Your task to perform on an android device: turn on bluetooth scan Image 0: 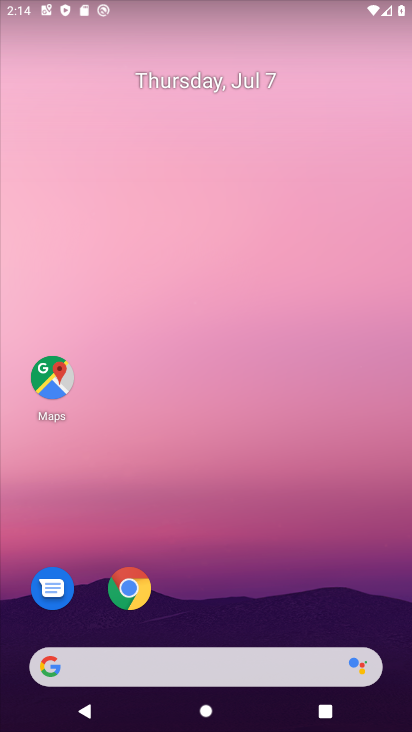
Step 0: drag from (196, 609) to (281, 45)
Your task to perform on an android device: turn on bluetooth scan Image 1: 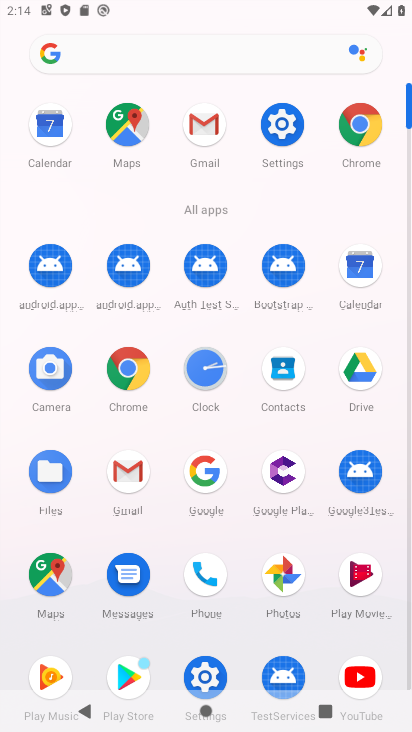
Step 1: click (274, 135)
Your task to perform on an android device: turn on bluetooth scan Image 2: 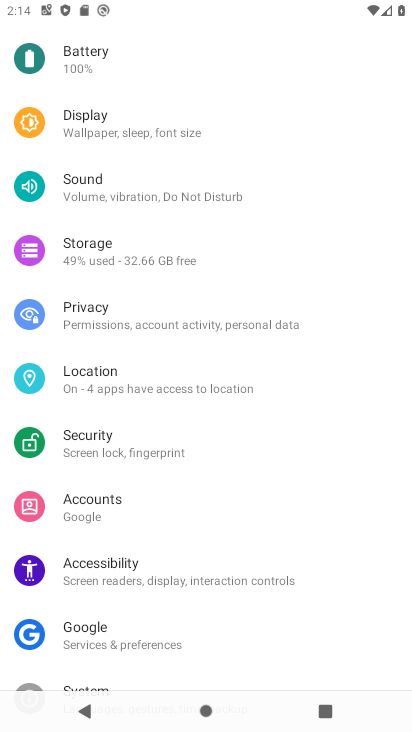
Step 2: drag from (192, 110) to (160, 688)
Your task to perform on an android device: turn on bluetooth scan Image 3: 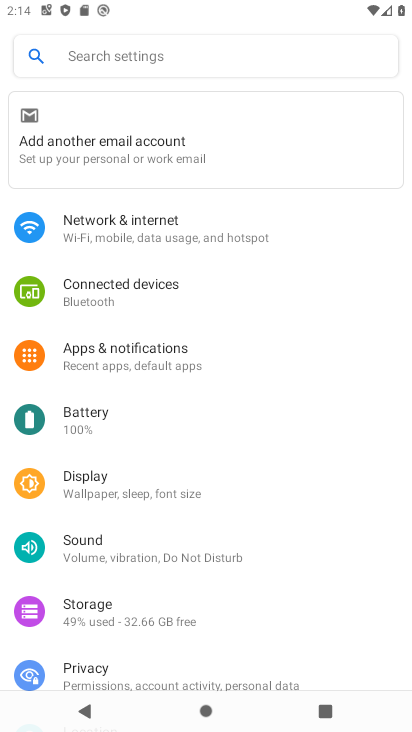
Step 3: click (78, 290)
Your task to perform on an android device: turn on bluetooth scan Image 4: 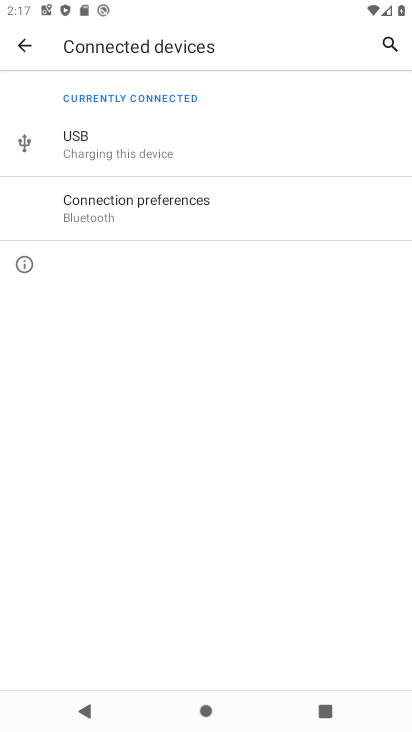
Step 4: click (119, 214)
Your task to perform on an android device: turn on bluetooth scan Image 5: 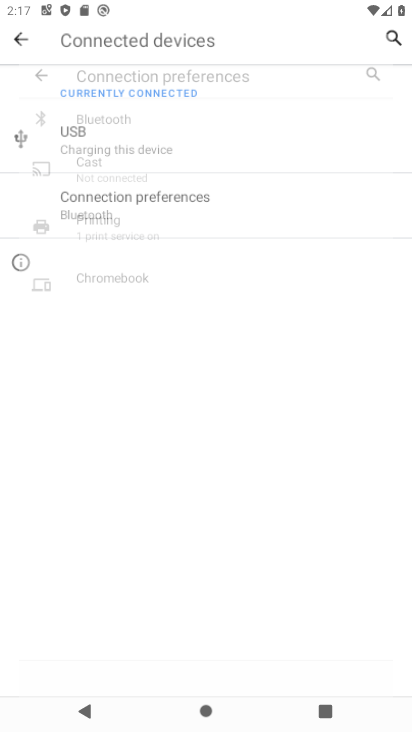
Step 5: task complete